Your task to perform on an android device: Open CNN.com Image 0: 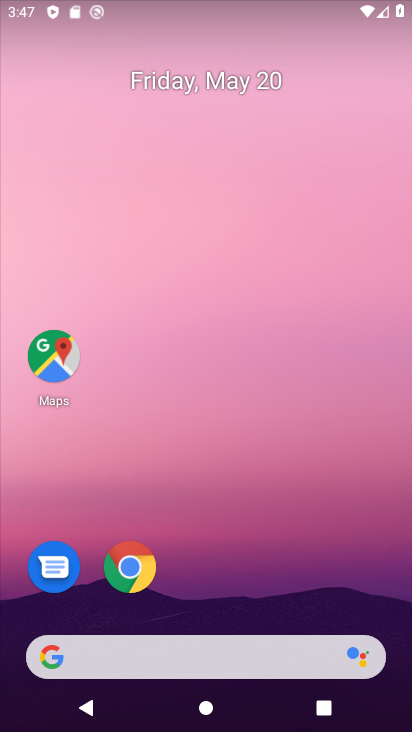
Step 0: click (178, 646)
Your task to perform on an android device: Open CNN.com Image 1: 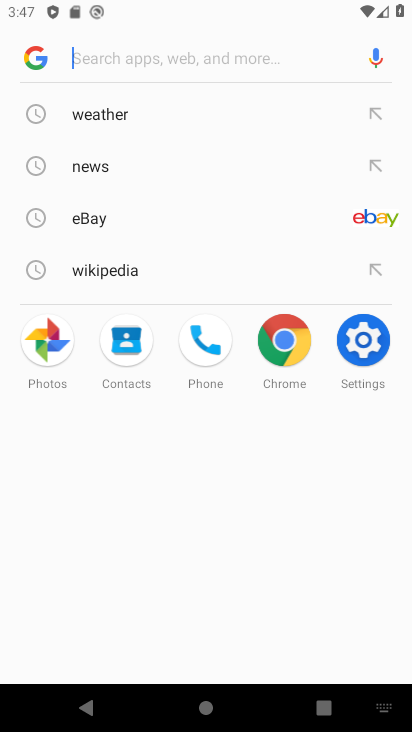
Step 1: type "cnn.com"
Your task to perform on an android device: Open CNN.com Image 2: 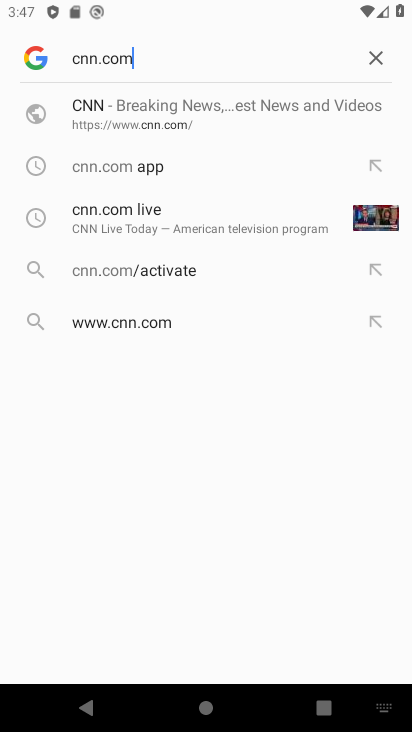
Step 2: click (232, 118)
Your task to perform on an android device: Open CNN.com Image 3: 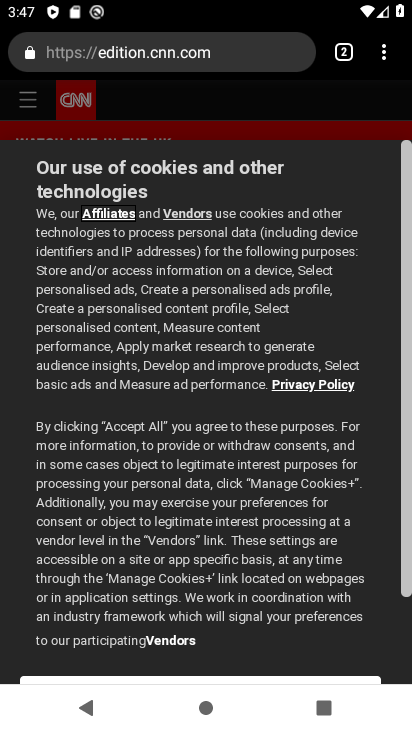
Step 3: task complete